Your task to perform on an android device: Clear the shopping cart on newegg.com. Search for "logitech g933" on newegg.com, select the first entry, add it to the cart, then select checkout. Image 0: 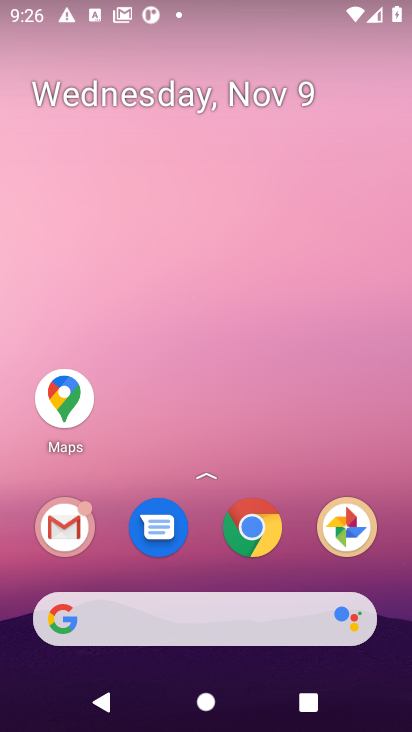
Step 0: click (256, 538)
Your task to perform on an android device: Clear the shopping cart on newegg.com. Search for "logitech g933" on newegg.com, select the first entry, add it to the cart, then select checkout. Image 1: 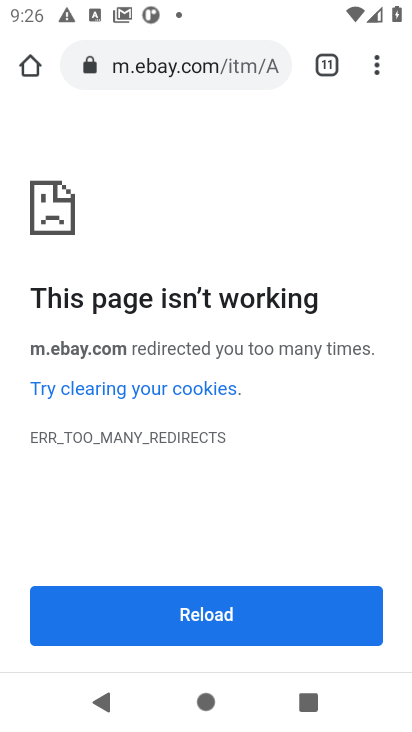
Step 1: click (180, 67)
Your task to perform on an android device: Clear the shopping cart on newegg.com. Search for "logitech g933" on newegg.com, select the first entry, add it to the cart, then select checkout. Image 2: 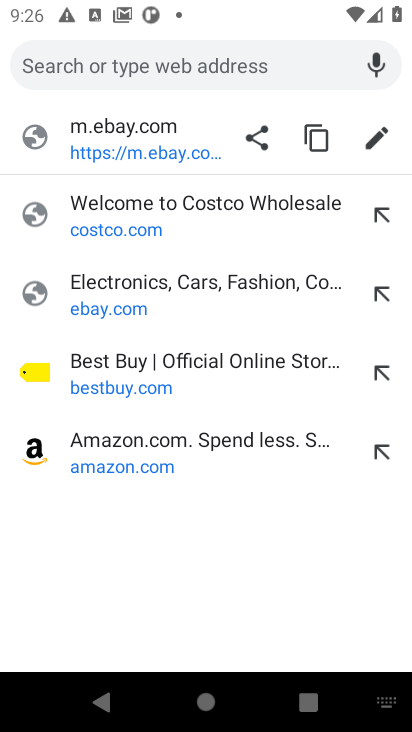
Step 2: type "newegg.com"
Your task to perform on an android device: Clear the shopping cart on newegg.com. Search for "logitech g933" on newegg.com, select the first entry, add it to the cart, then select checkout. Image 3: 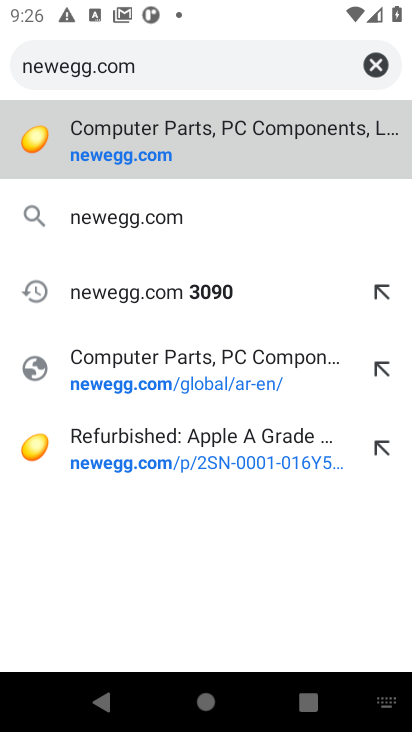
Step 3: click (113, 167)
Your task to perform on an android device: Clear the shopping cart on newegg.com. Search for "logitech g933" on newegg.com, select the first entry, add it to the cart, then select checkout. Image 4: 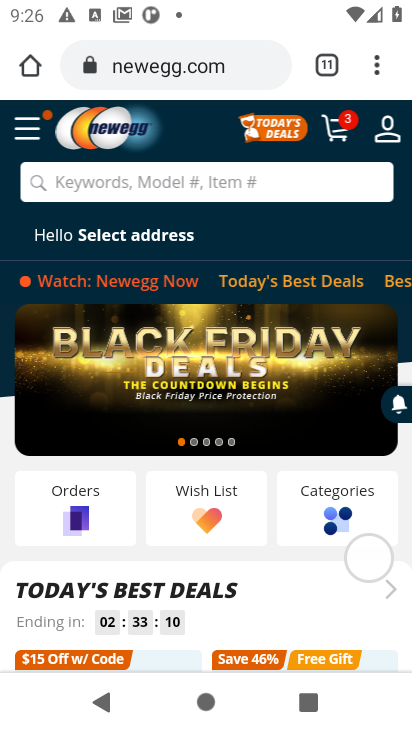
Step 4: click (341, 130)
Your task to perform on an android device: Clear the shopping cart on newegg.com. Search for "logitech g933" on newegg.com, select the first entry, add it to the cart, then select checkout. Image 5: 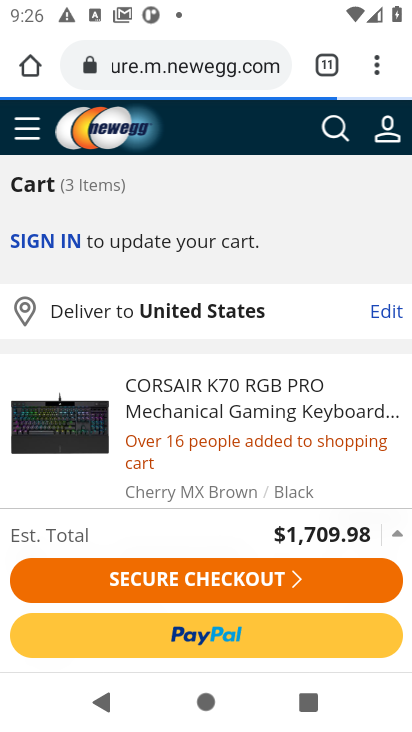
Step 5: drag from (198, 393) to (205, 177)
Your task to perform on an android device: Clear the shopping cart on newegg.com. Search for "logitech g933" on newegg.com, select the first entry, add it to the cart, then select checkout. Image 6: 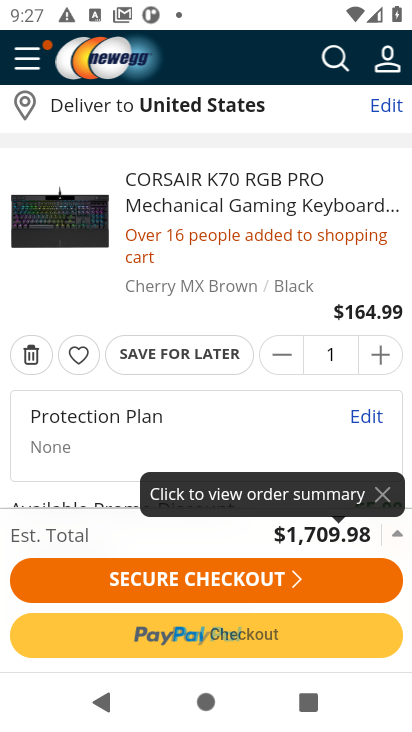
Step 6: click (35, 360)
Your task to perform on an android device: Clear the shopping cart on newegg.com. Search for "logitech g933" on newegg.com, select the first entry, add it to the cart, then select checkout. Image 7: 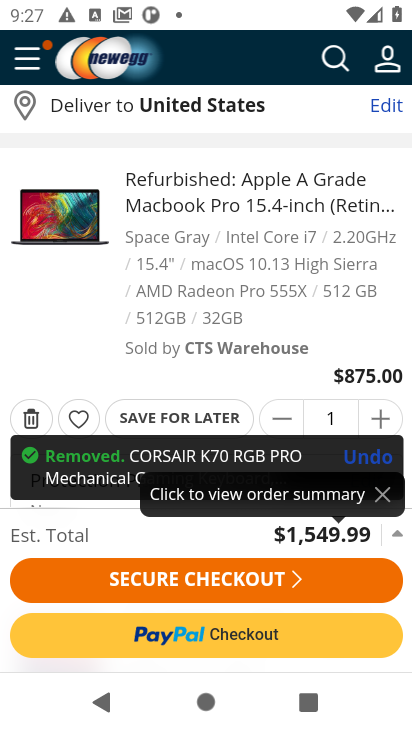
Step 7: drag from (35, 360) to (37, 215)
Your task to perform on an android device: Clear the shopping cart on newegg.com. Search for "logitech g933" on newegg.com, select the first entry, add it to the cart, then select checkout. Image 8: 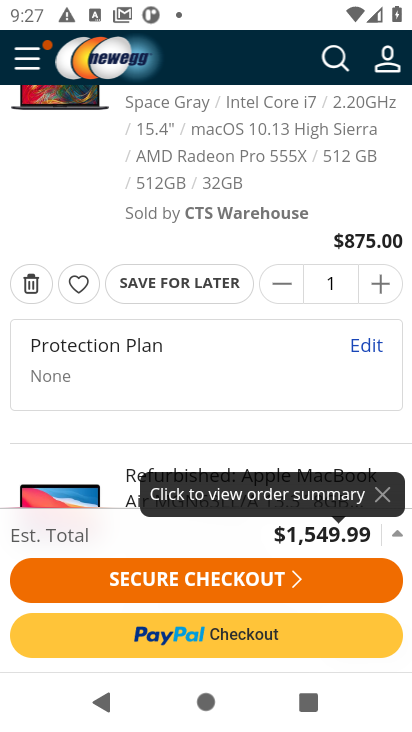
Step 8: click (28, 293)
Your task to perform on an android device: Clear the shopping cart on newegg.com. Search for "logitech g933" on newegg.com, select the first entry, add it to the cart, then select checkout. Image 9: 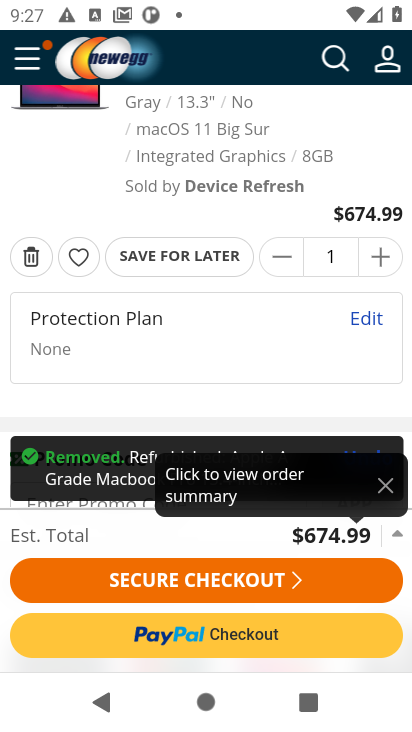
Step 9: click (29, 259)
Your task to perform on an android device: Clear the shopping cart on newegg.com. Search for "logitech g933" on newegg.com, select the first entry, add it to the cart, then select checkout. Image 10: 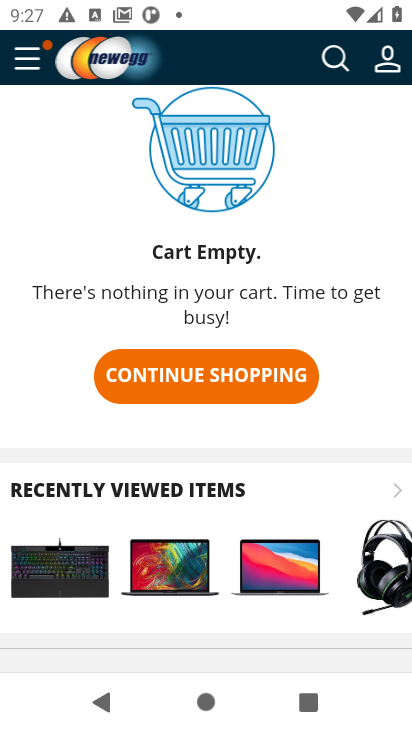
Step 10: click (192, 377)
Your task to perform on an android device: Clear the shopping cart on newegg.com. Search for "logitech g933" on newegg.com, select the first entry, add it to the cart, then select checkout. Image 11: 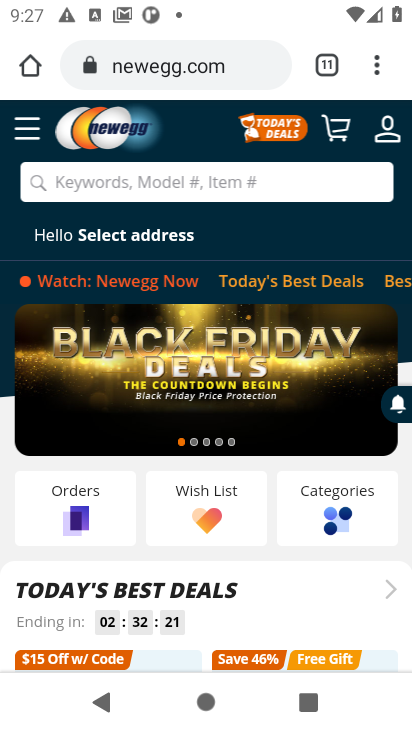
Step 11: click (160, 188)
Your task to perform on an android device: Clear the shopping cart on newegg.com. Search for "logitech g933" on newegg.com, select the first entry, add it to the cart, then select checkout. Image 12: 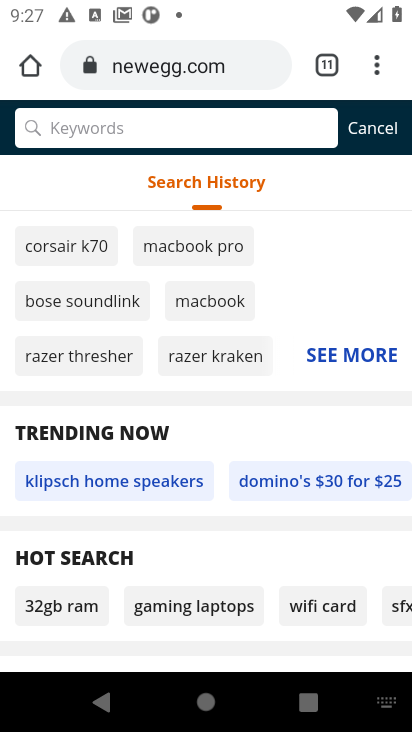
Step 12: type "logitech g933"
Your task to perform on an android device: Clear the shopping cart on newegg.com. Search for "logitech g933" on newegg.com, select the first entry, add it to the cart, then select checkout. Image 13: 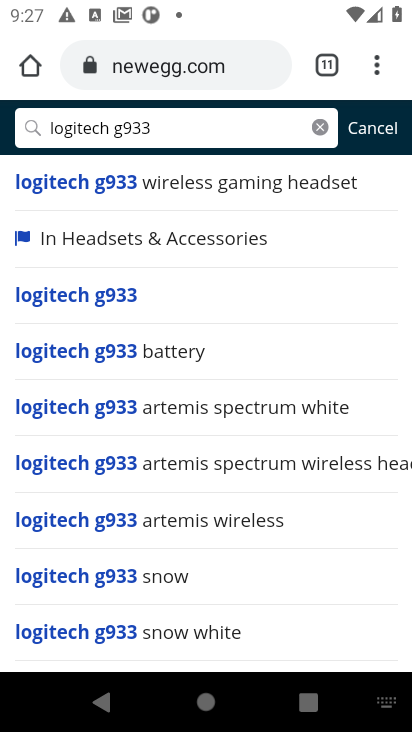
Step 13: click (87, 302)
Your task to perform on an android device: Clear the shopping cart on newegg.com. Search for "logitech g933" on newegg.com, select the first entry, add it to the cart, then select checkout. Image 14: 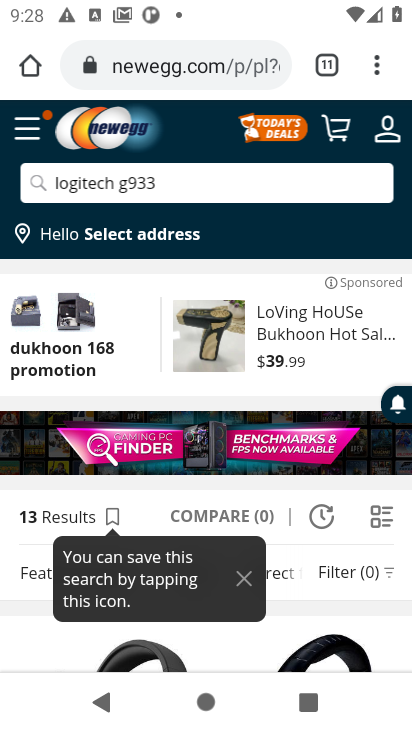
Step 14: task complete